Your task to perform on an android device: Open Amazon Image 0: 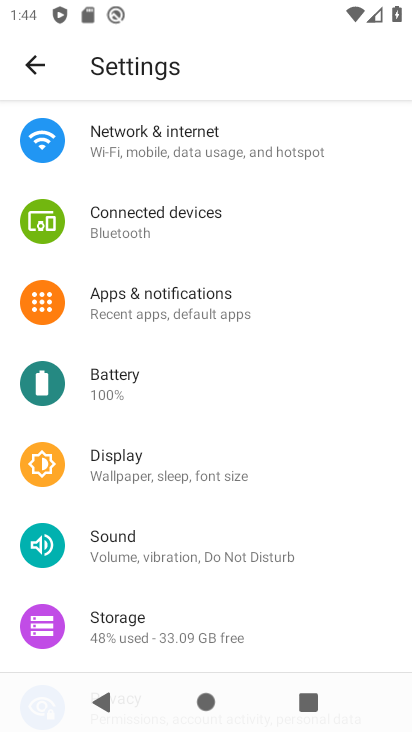
Step 0: press home button
Your task to perform on an android device: Open Amazon Image 1: 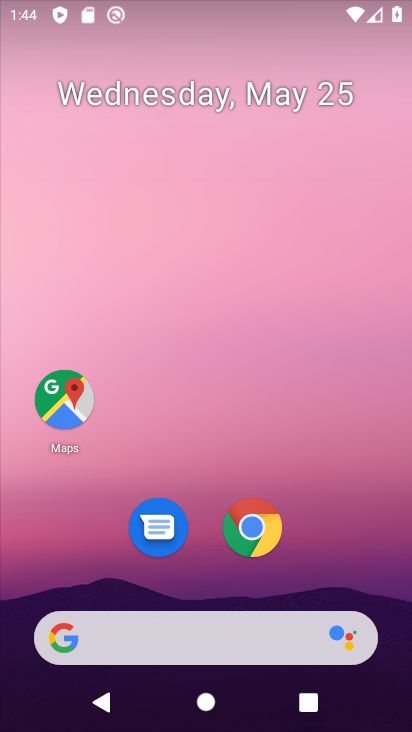
Step 1: drag from (221, 476) to (221, 15)
Your task to perform on an android device: Open Amazon Image 2: 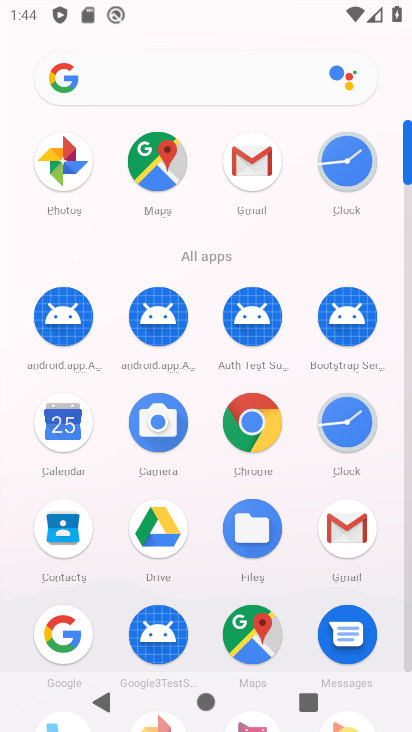
Step 2: click (233, 421)
Your task to perform on an android device: Open Amazon Image 3: 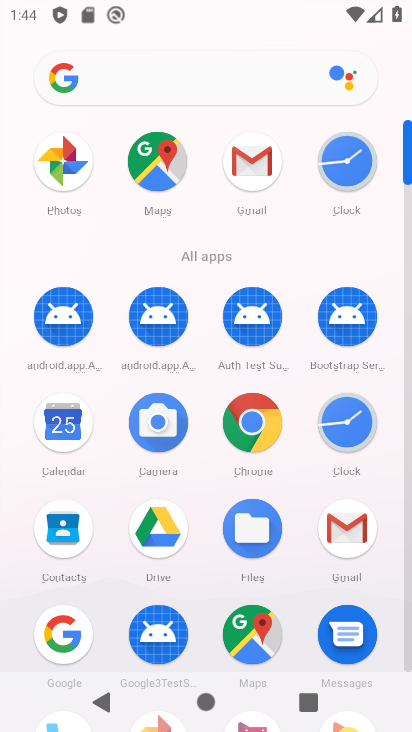
Step 3: click (233, 421)
Your task to perform on an android device: Open Amazon Image 4: 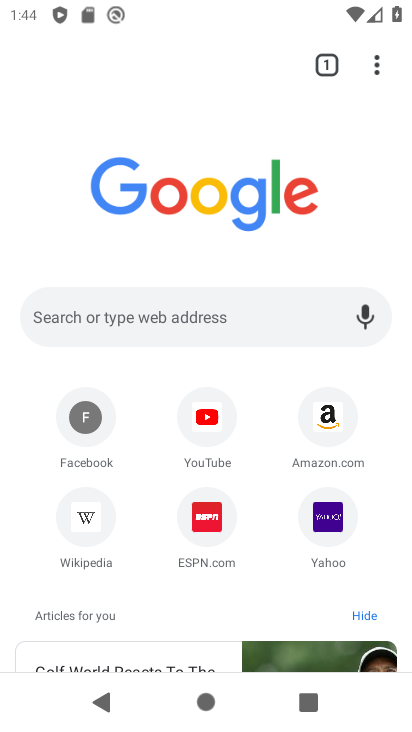
Step 4: click (322, 413)
Your task to perform on an android device: Open Amazon Image 5: 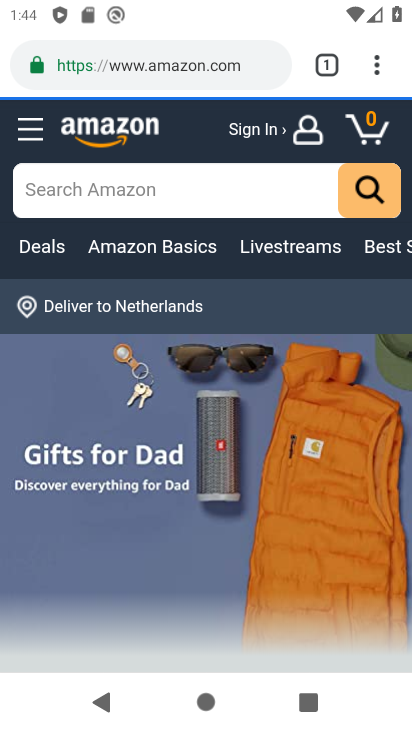
Step 5: task complete